Your task to perform on an android device: Go to calendar. Show me events next week Image 0: 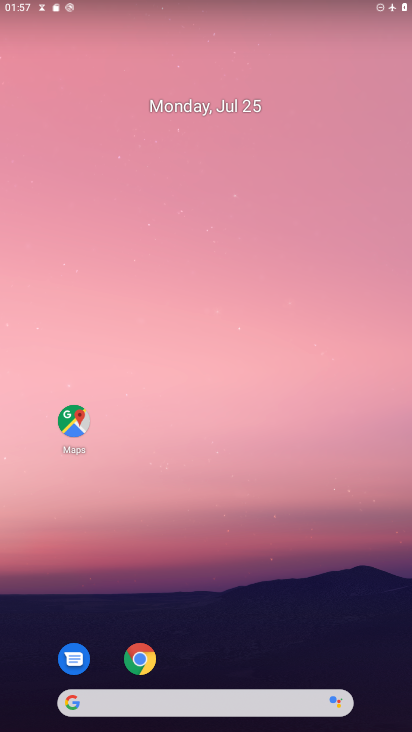
Step 0: drag from (315, 644) to (287, 13)
Your task to perform on an android device: Go to calendar. Show me events next week Image 1: 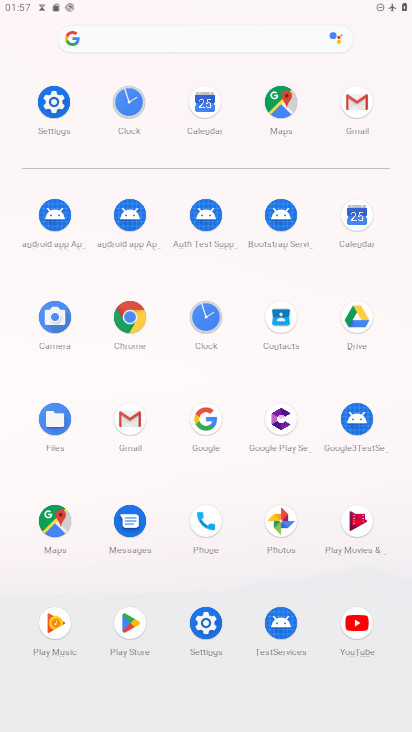
Step 1: click (367, 204)
Your task to perform on an android device: Go to calendar. Show me events next week Image 2: 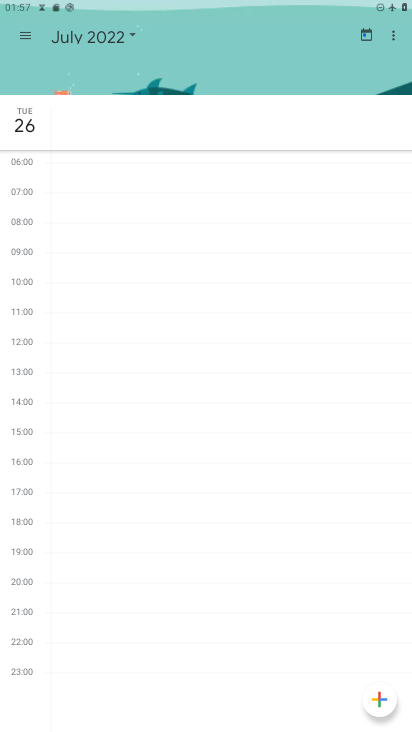
Step 2: click (23, 15)
Your task to perform on an android device: Go to calendar. Show me events next week Image 3: 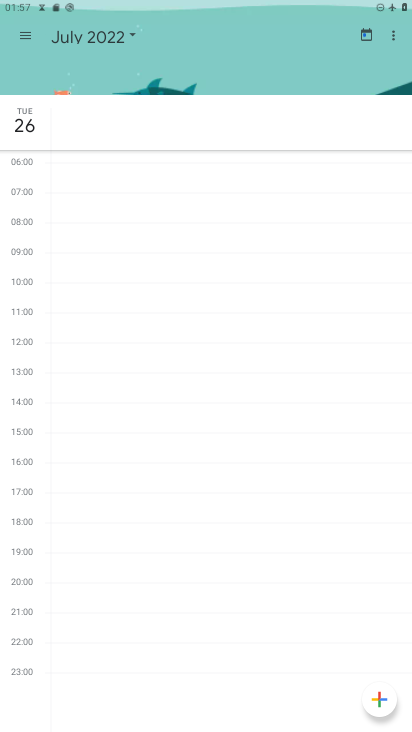
Step 3: click (16, 25)
Your task to perform on an android device: Go to calendar. Show me events next week Image 4: 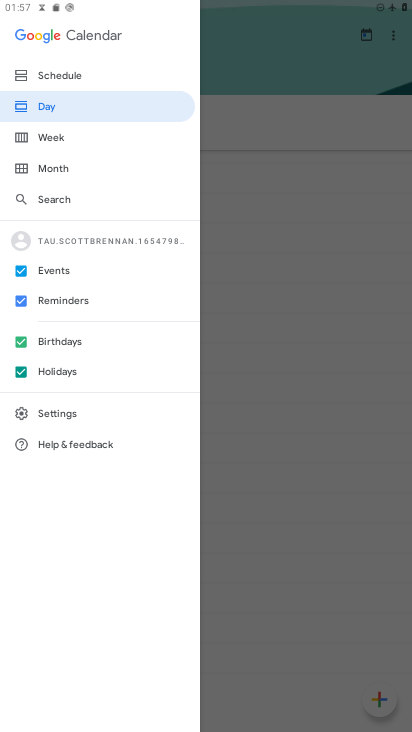
Step 4: click (58, 128)
Your task to perform on an android device: Go to calendar. Show me events next week Image 5: 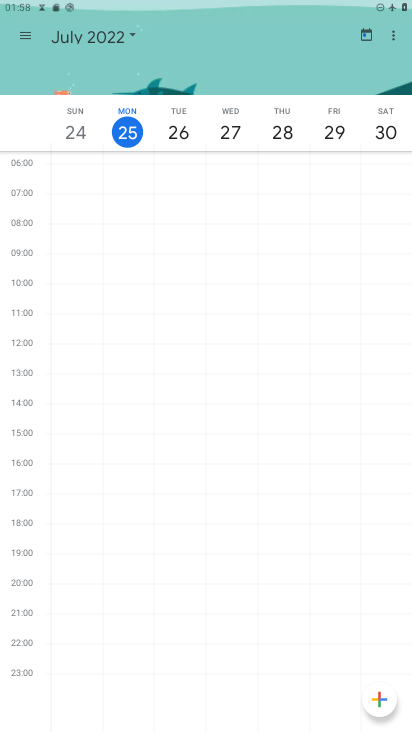
Step 5: task complete